Your task to perform on an android device: clear history in the chrome app Image 0: 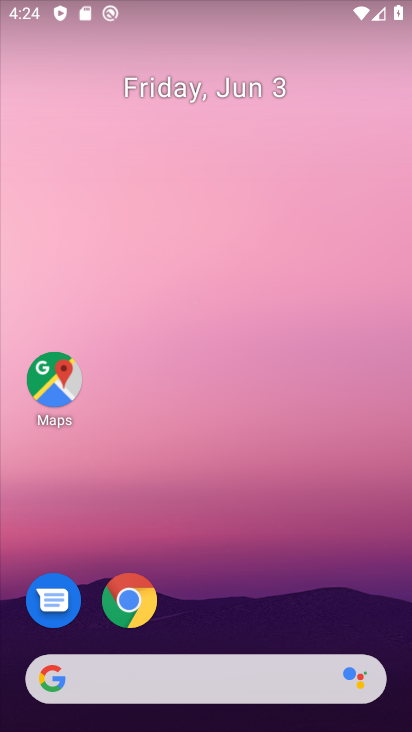
Step 0: drag from (257, 352) to (319, 225)
Your task to perform on an android device: clear history in the chrome app Image 1: 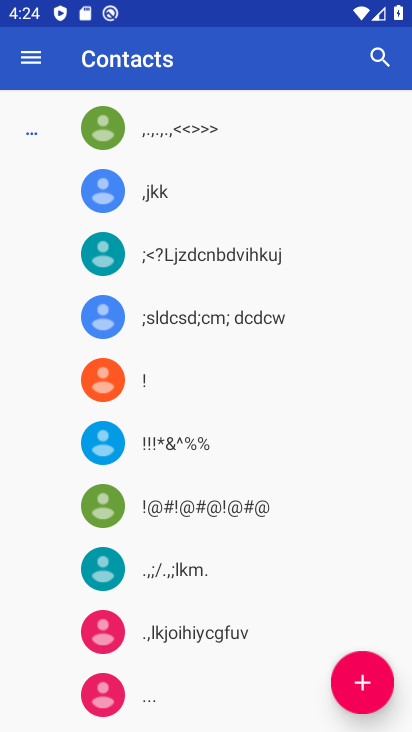
Step 1: press home button
Your task to perform on an android device: clear history in the chrome app Image 2: 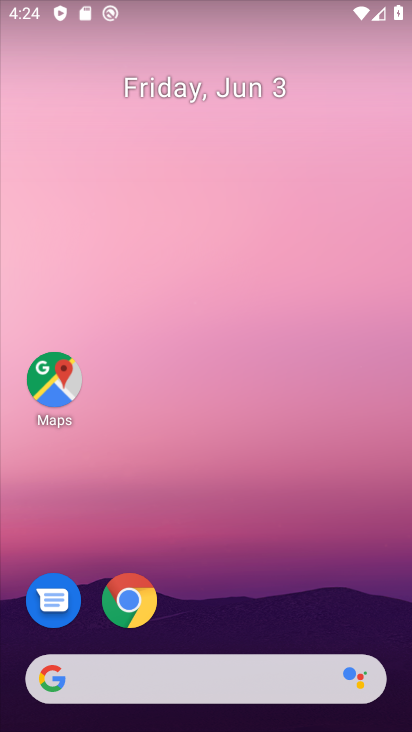
Step 2: click (132, 597)
Your task to perform on an android device: clear history in the chrome app Image 3: 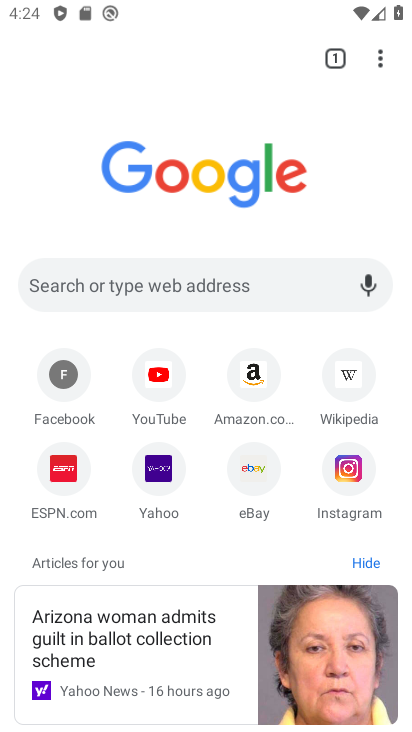
Step 3: click (384, 59)
Your task to perform on an android device: clear history in the chrome app Image 4: 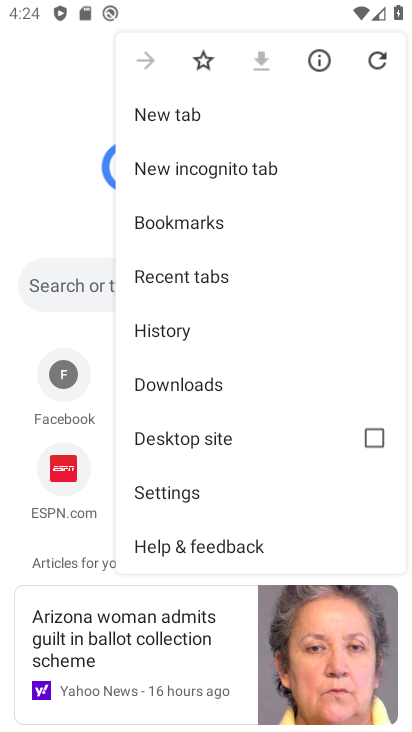
Step 4: click (173, 326)
Your task to perform on an android device: clear history in the chrome app Image 5: 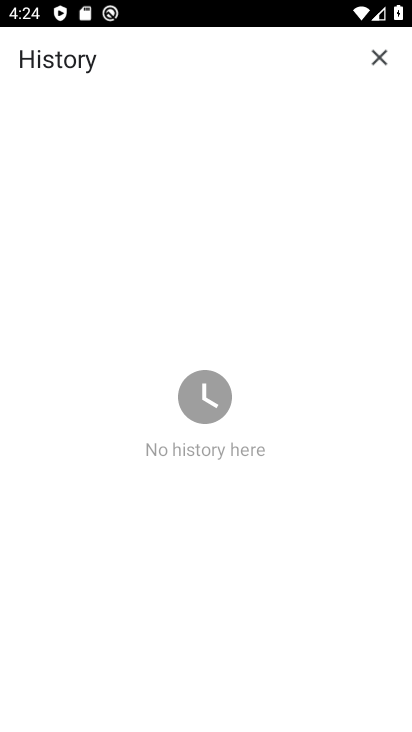
Step 5: task complete